Your task to perform on an android device: delete a single message in the gmail app Image 0: 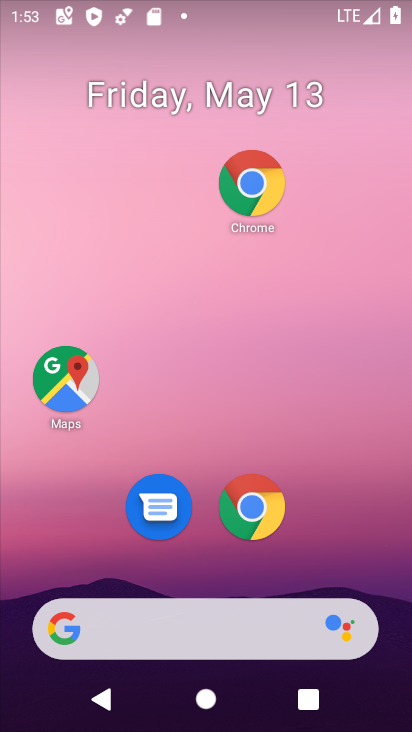
Step 0: drag from (300, 621) to (180, 8)
Your task to perform on an android device: delete a single message in the gmail app Image 1: 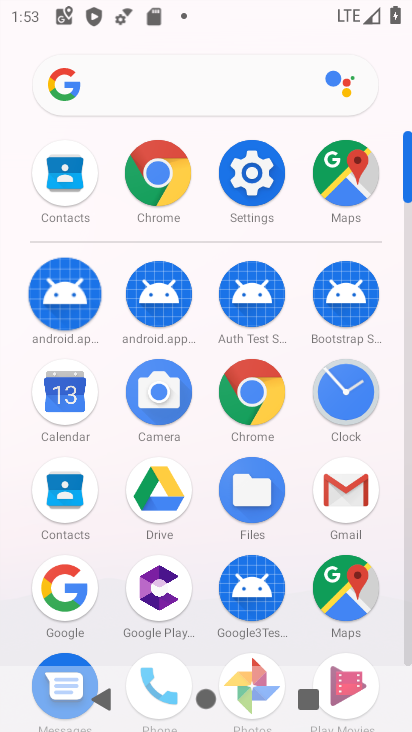
Step 1: click (339, 480)
Your task to perform on an android device: delete a single message in the gmail app Image 2: 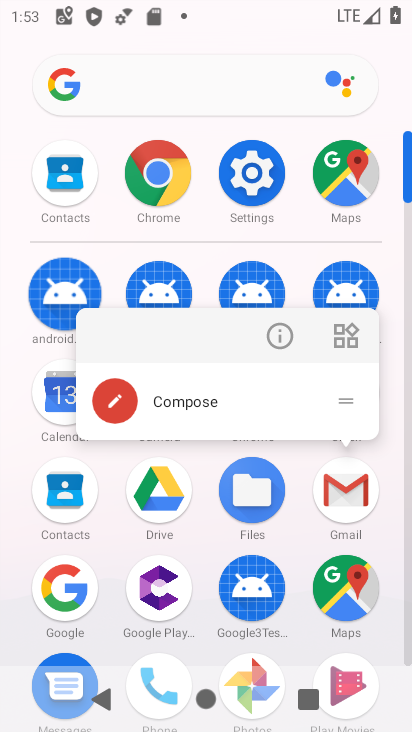
Step 2: click (339, 480)
Your task to perform on an android device: delete a single message in the gmail app Image 3: 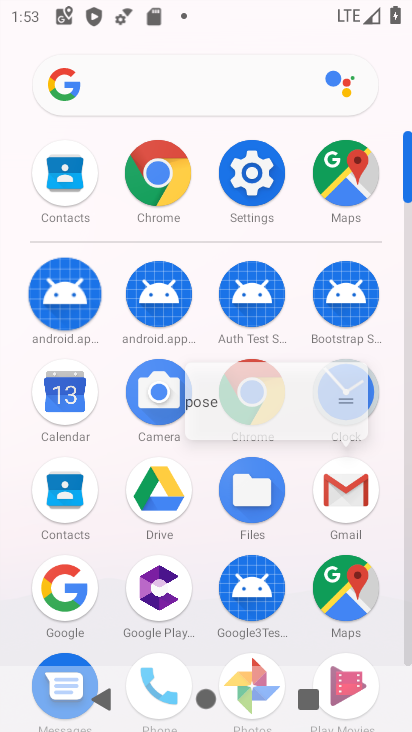
Step 3: click (339, 480)
Your task to perform on an android device: delete a single message in the gmail app Image 4: 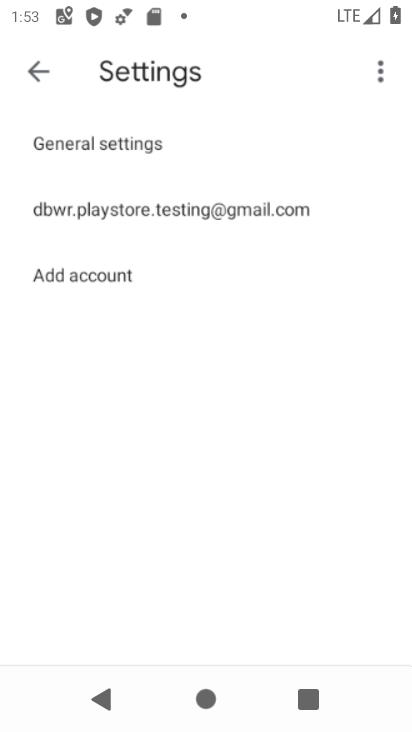
Step 4: click (347, 496)
Your task to perform on an android device: delete a single message in the gmail app Image 5: 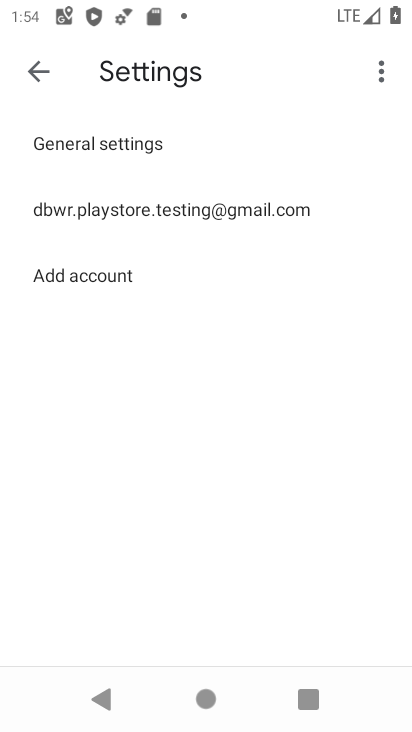
Step 5: click (112, 203)
Your task to perform on an android device: delete a single message in the gmail app Image 6: 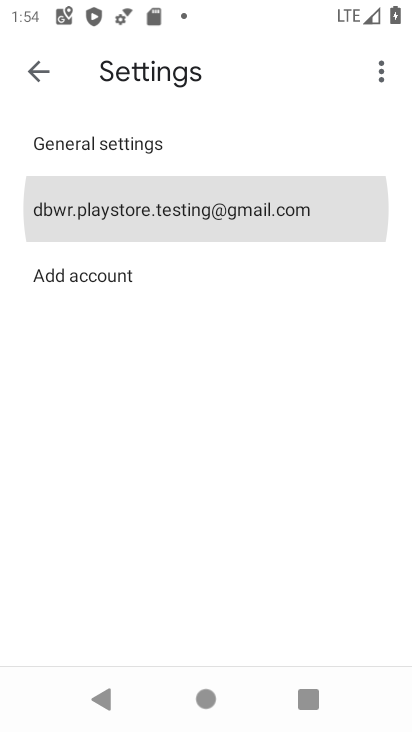
Step 6: click (112, 203)
Your task to perform on an android device: delete a single message in the gmail app Image 7: 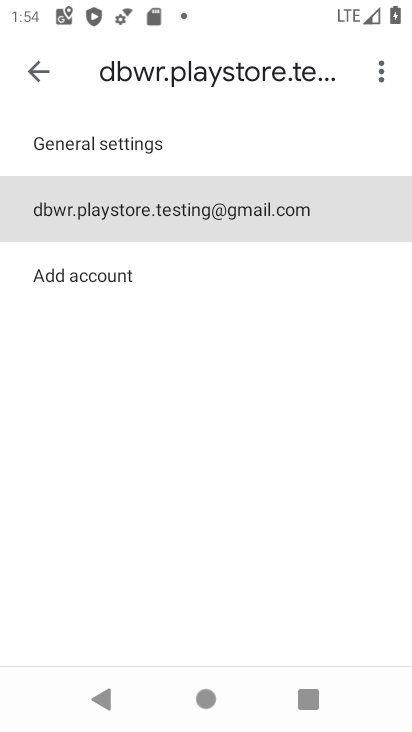
Step 7: click (112, 203)
Your task to perform on an android device: delete a single message in the gmail app Image 8: 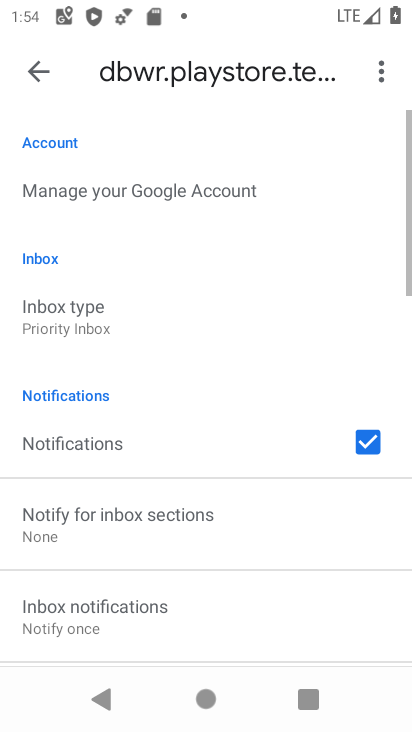
Step 8: click (34, 70)
Your task to perform on an android device: delete a single message in the gmail app Image 9: 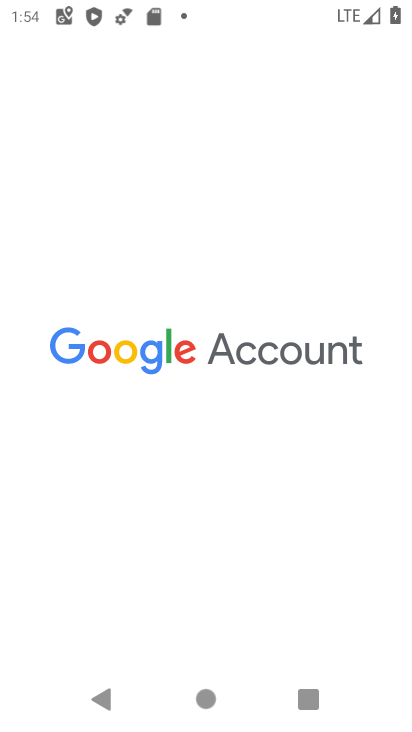
Step 9: click (34, 70)
Your task to perform on an android device: delete a single message in the gmail app Image 10: 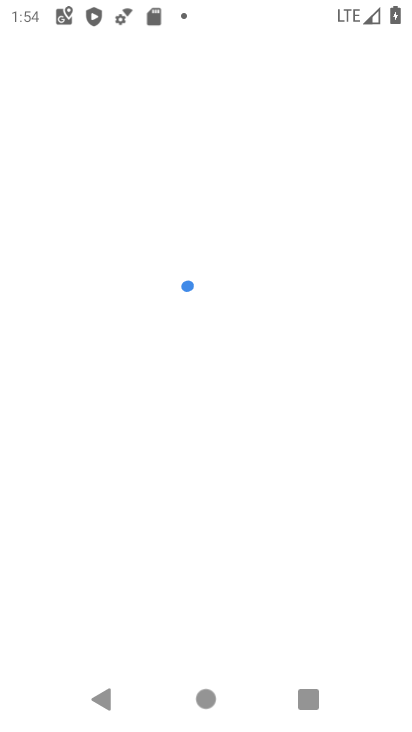
Step 10: press back button
Your task to perform on an android device: delete a single message in the gmail app Image 11: 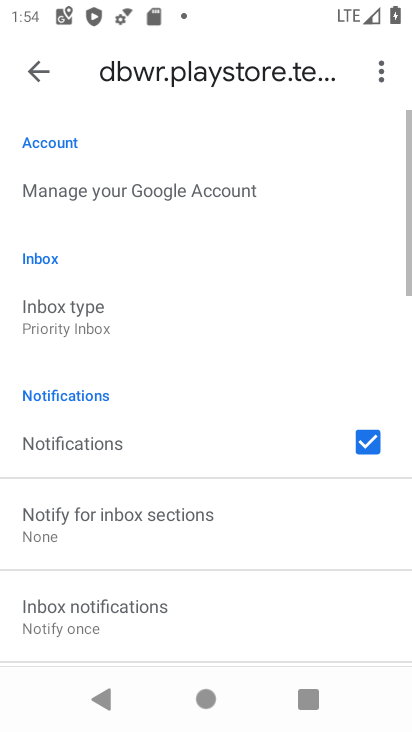
Step 11: click (32, 63)
Your task to perform on an android device: delete a single message in the gmail app Image 12: 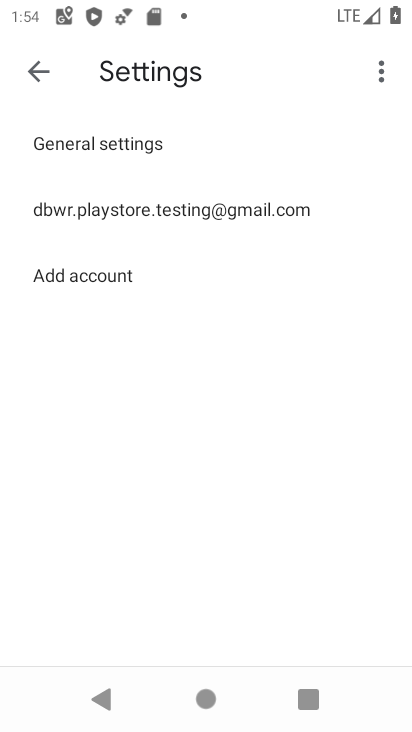
Step 12: click (30, 54)
Your task to perform on an android device: delete a single message in the gmail app Image 13: 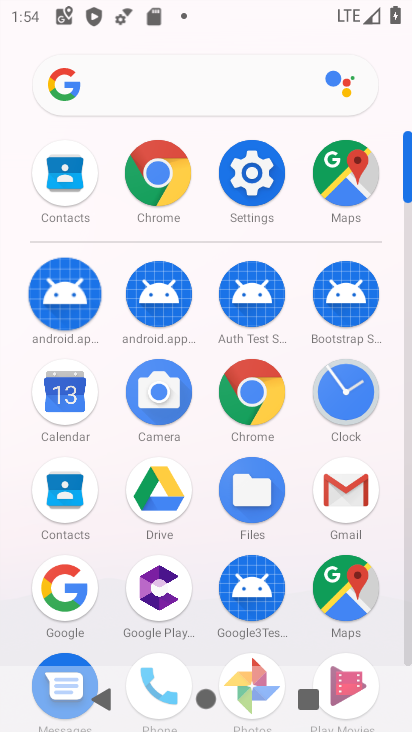
Step 13: click (350, 486)
Your task to perform on an android device: delete a single message in the gmail app Image 14: 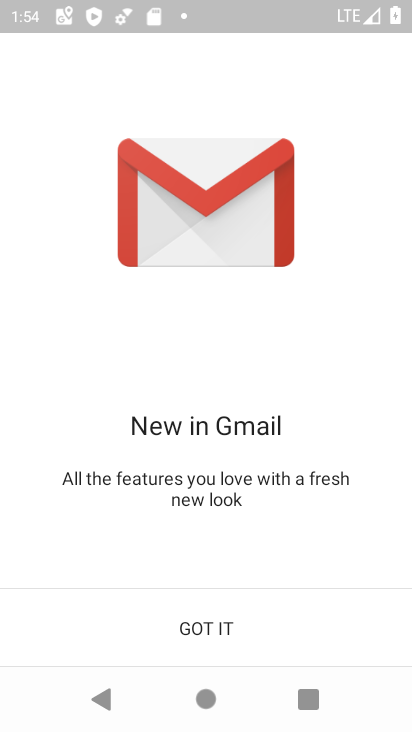
Step 14: click (208, 625)
Your task to perform on an android device: delete a single message in the gmail app Image 15: 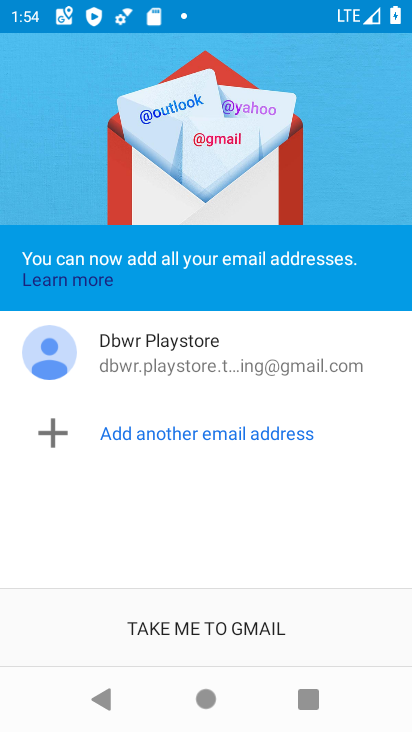
Step 15: click (208, 625)
Your task to perform on an android device: delete a single message in the gmail app Image 16: 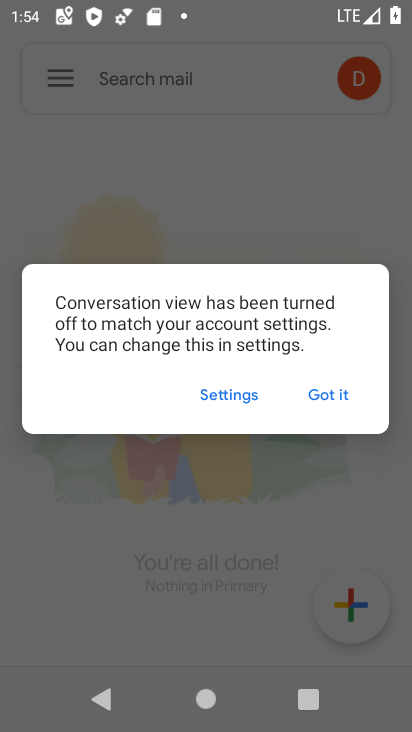
Step 16: click (335, 388)
Your task to perform on an android device: delete a single message in the gmail app Image 17: 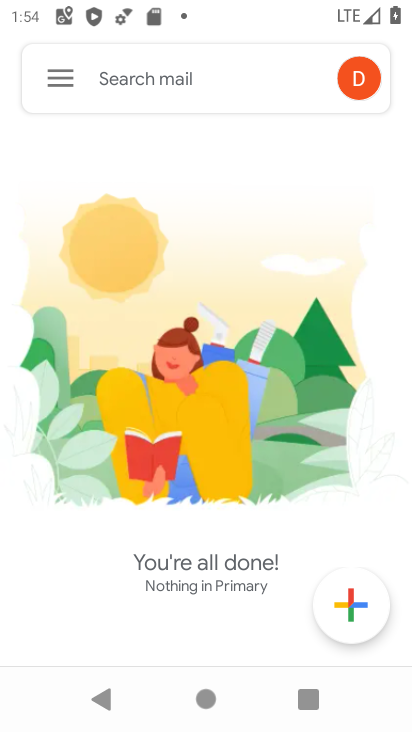
Step 17: click (69, 78)
Your task to perform on an android device: delete a single message in the gmail app Image 18: 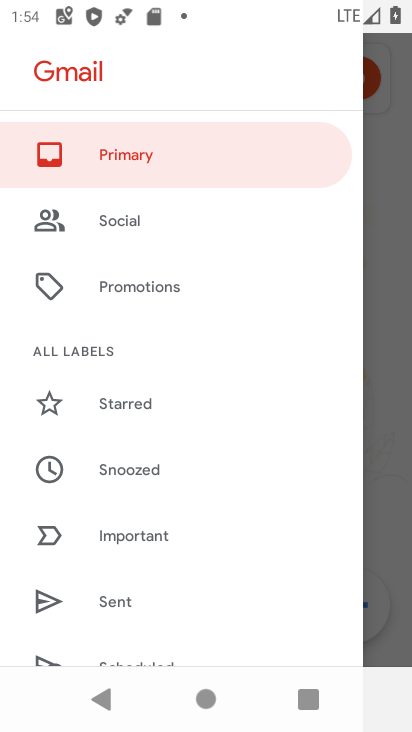
Step 18: drag from (128, 505) to (92, 117)
Your task to perform on an android device: delete a single message in the gmail app Image 19: 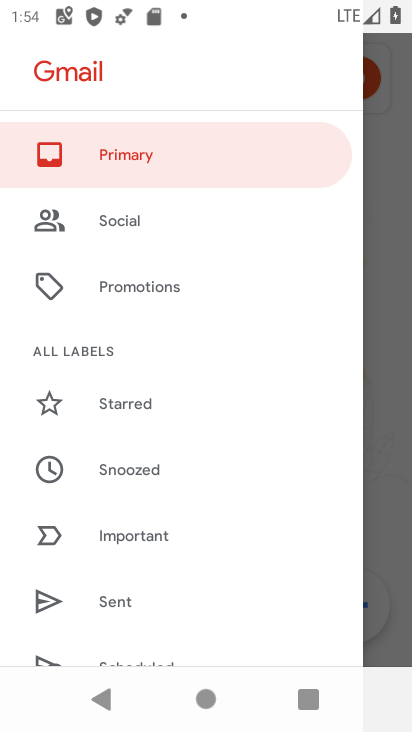
Step 19: drag from (121, 492) to (83, 118)
Your task to perform on an android device: delete a single message in the gmail app Image 20: 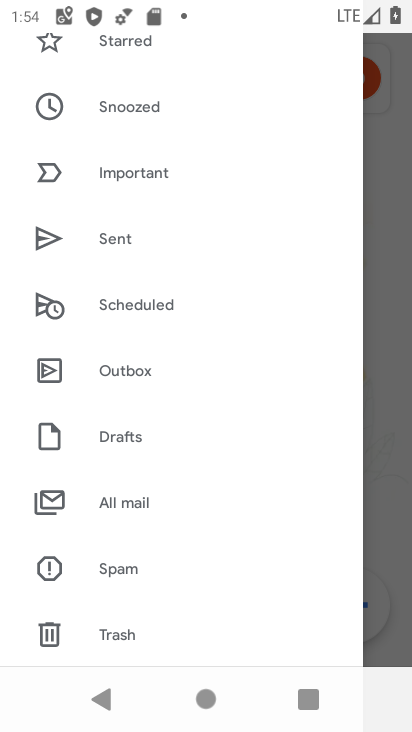
Step 20: click (126, 502)
Your task to perform on an android device: delete a single message in the gmail app Image 21: 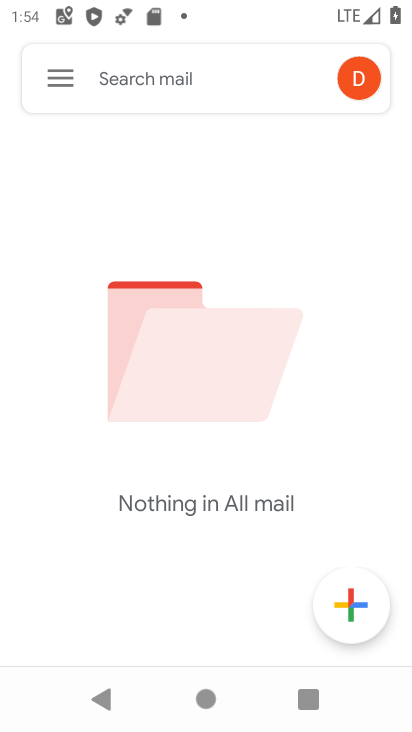
Step 21: task complete